Your task to perform on an android device: open app "Etsy: Buy & Sell Unique Items" (install if not already installed) Image 0: 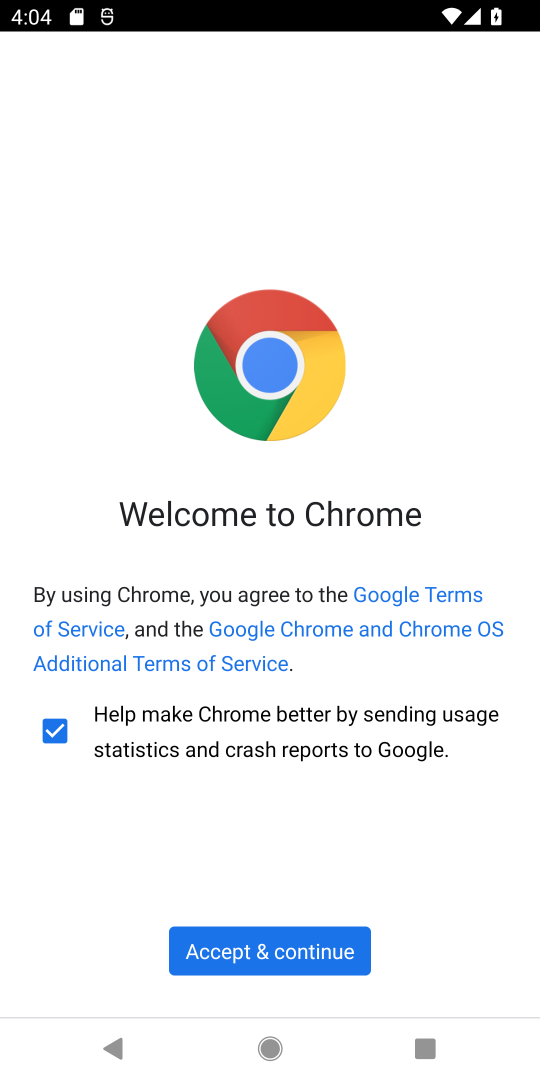
Step 0: press home button
Your task to perform on an android device: open app "Etsy: Buy & Sell Unique Items" (install if not already installed) Image 1: 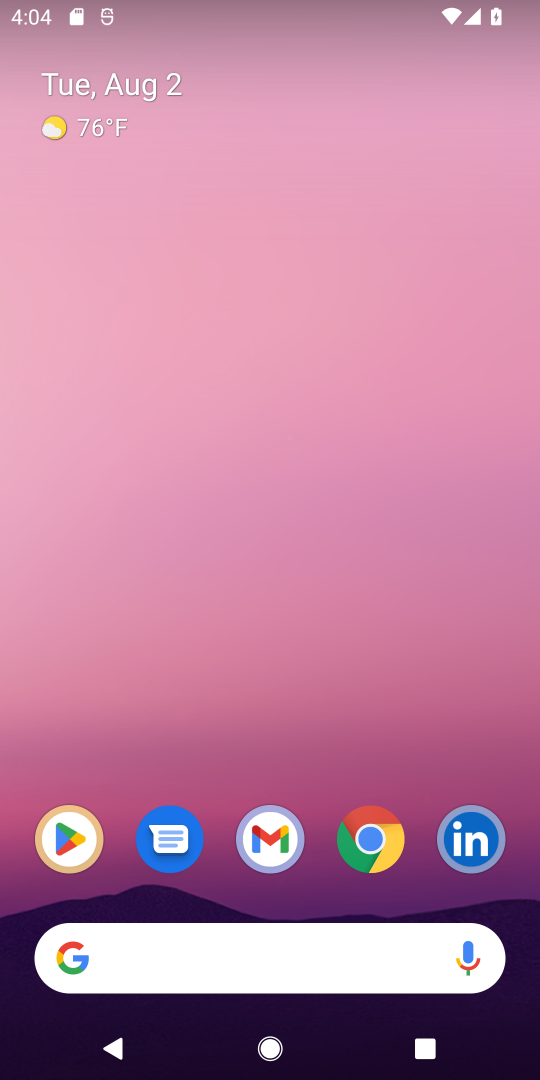
Step 1: click (54, 869)
Your task to perform on an android device: open app "Etsy: Buy & Sell Unique Items" (install if not already installed) Image 2: 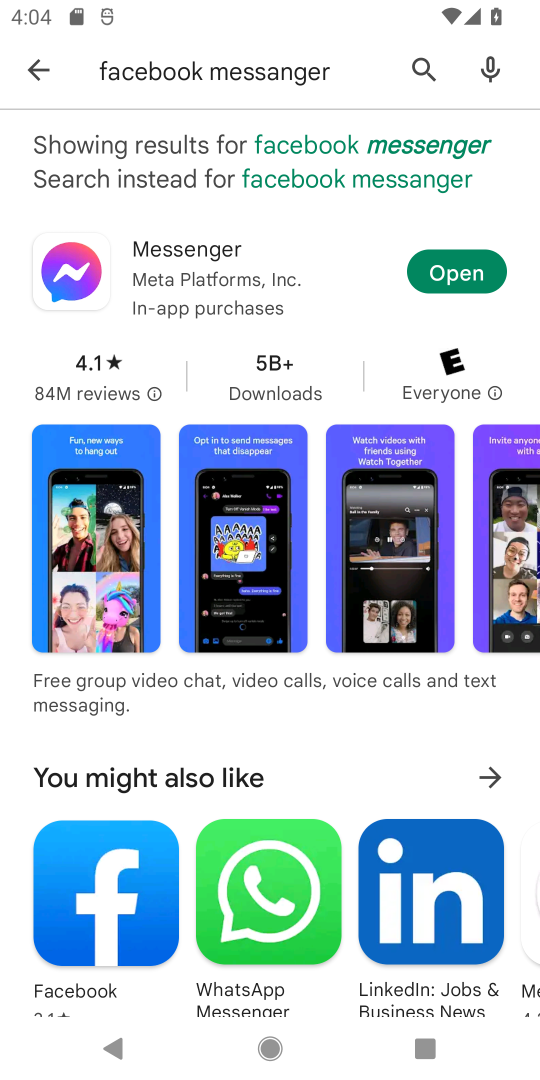
Step 2: click (444, 70)
Your task to perform on an android device: open app "Etsy: Buy & Sell Unique Items" (install if not already installed) Image 3: 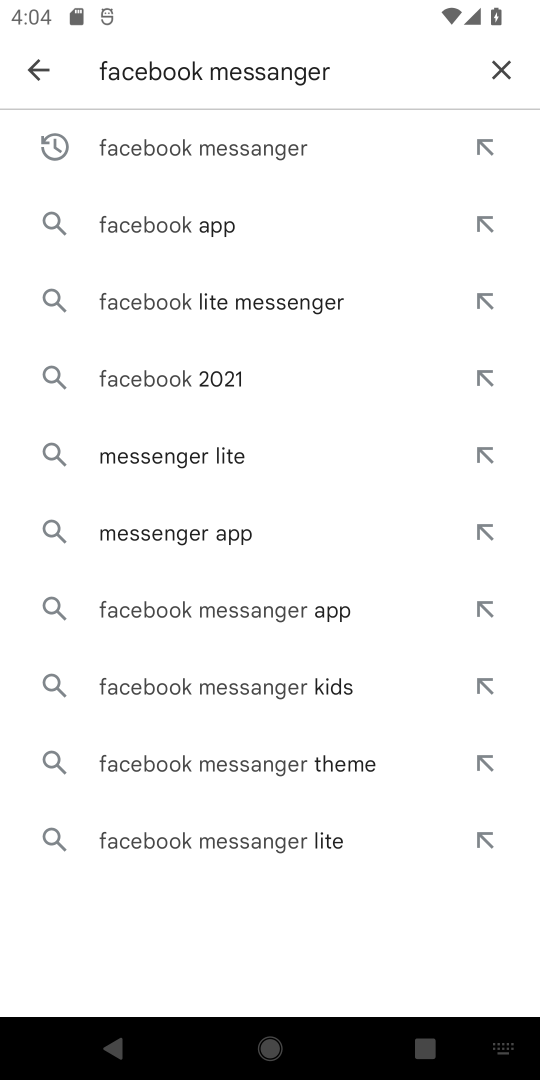
Step 3: click (488, 70)
Your task to perform on an android device: open app "Etsy: Buy & Sell Unique Items" (install if not already installed) Image 4: 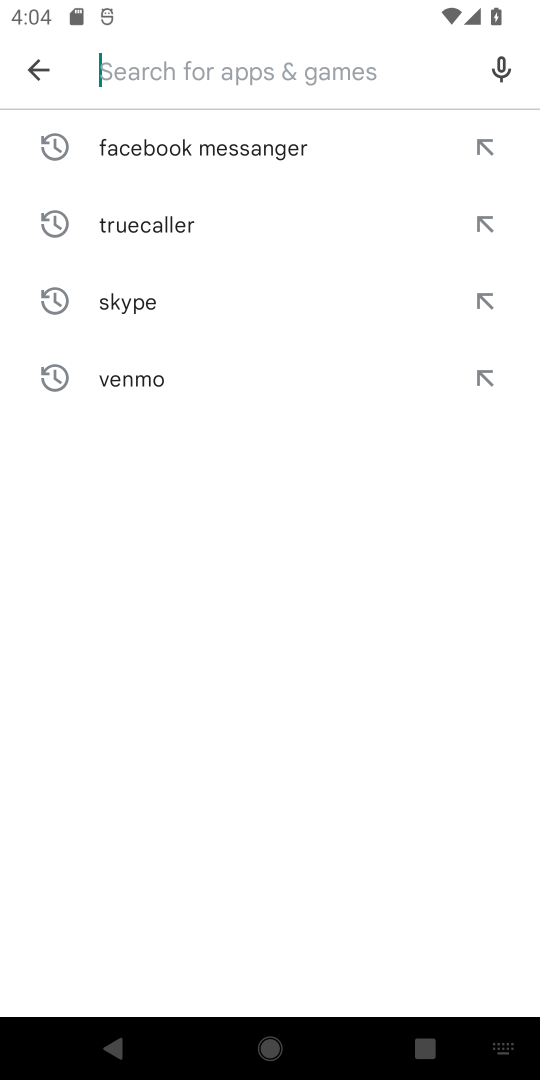
Step 4: type "etsy"
Your task to perform on an android device: open app "Etsy: Buy & Sell Unique Items" (install if not already installed) Image 5: 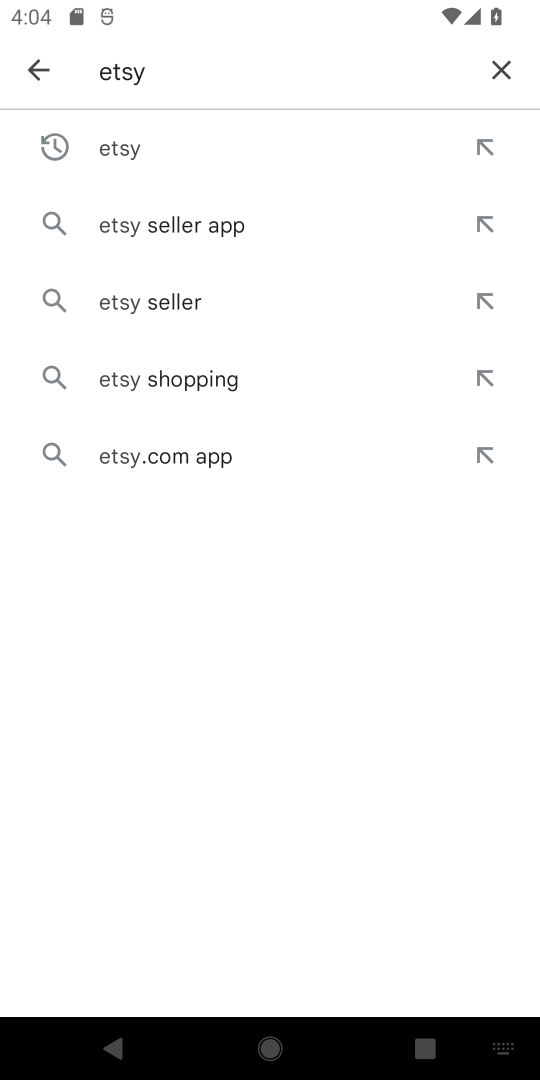
Step 5: click (113, 133)
Your task to perform on an android device: open app "Etsy: Buy & Sell Unique Items" (install if not already installed) Image 6: 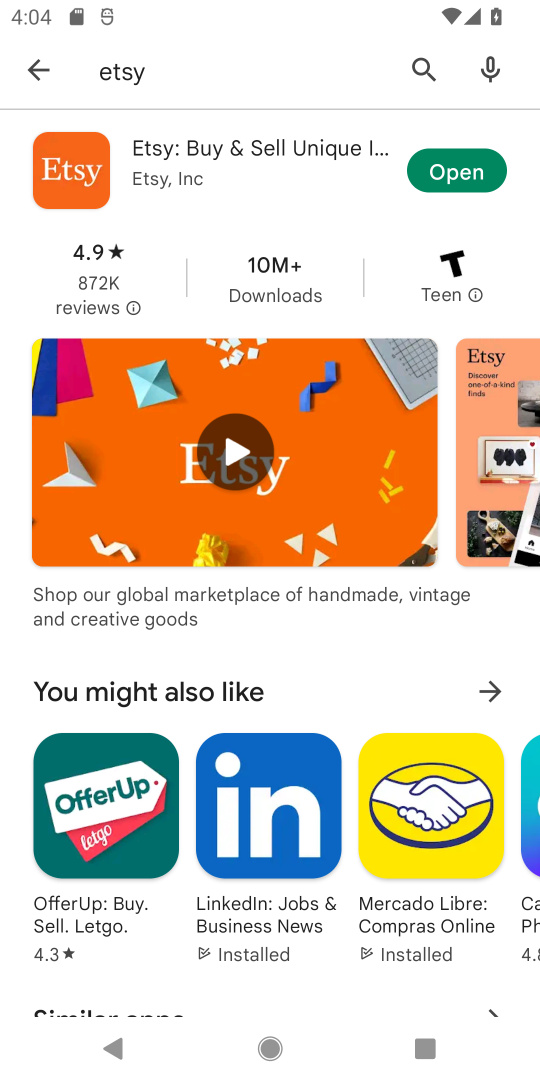
Step 6: click (431, 159)
Your task to perform on an android device: open app "Etsy: Buy & Sell Unique Items" (install if not already installed) Image 7: 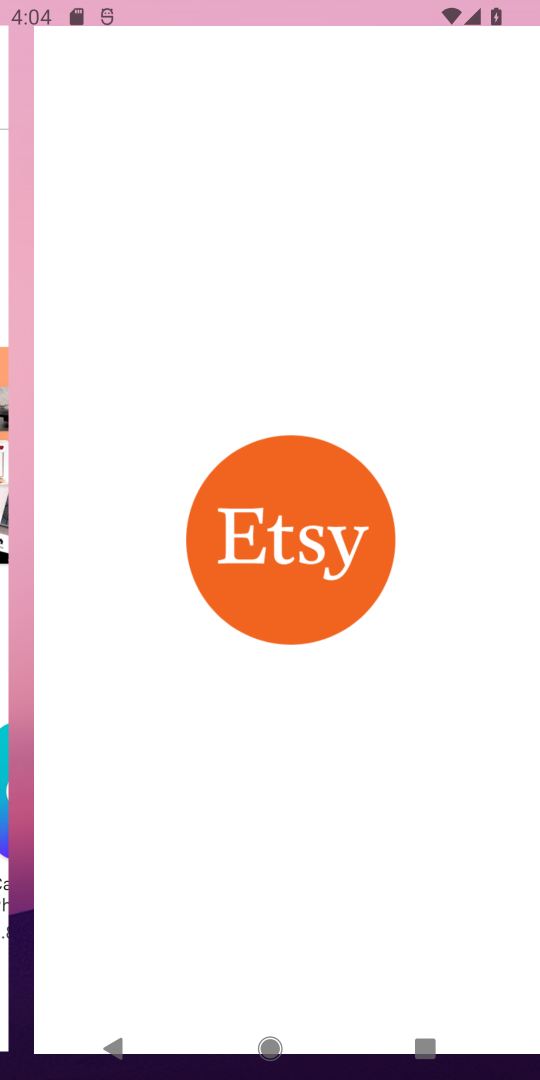
Step 7: task complete